Your task to perform on an android device: Search for dell xps on costco.com, select the first entry, add it to the cart, then select checkout. Image 0: 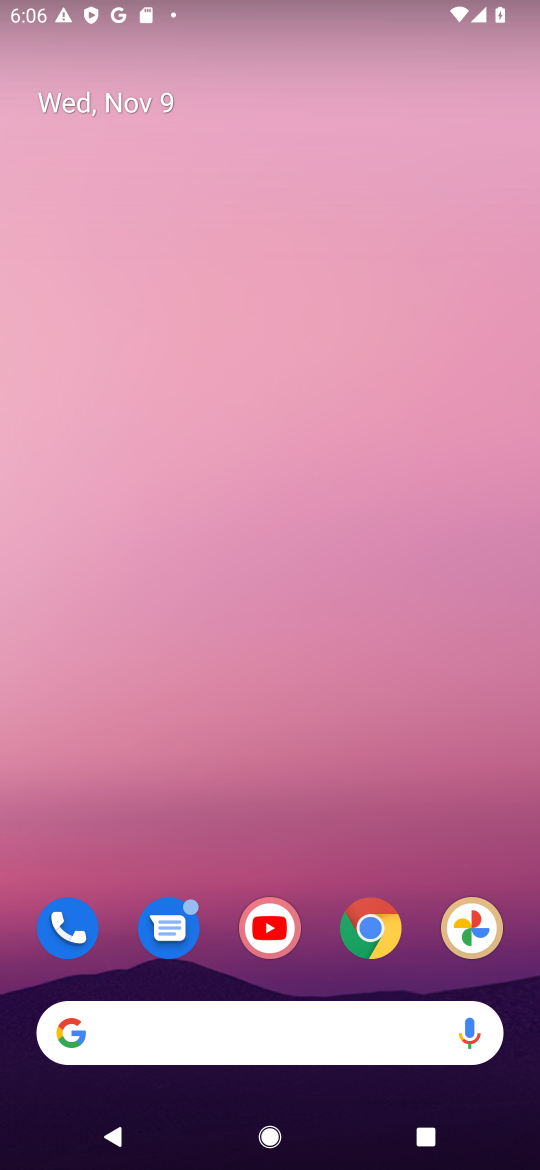
Step 0: click (374, 926)
Your task to perform on an android device: Search for dell xps on costco.com, select the first entry, add it to the cart, then select checkout. Image 1: 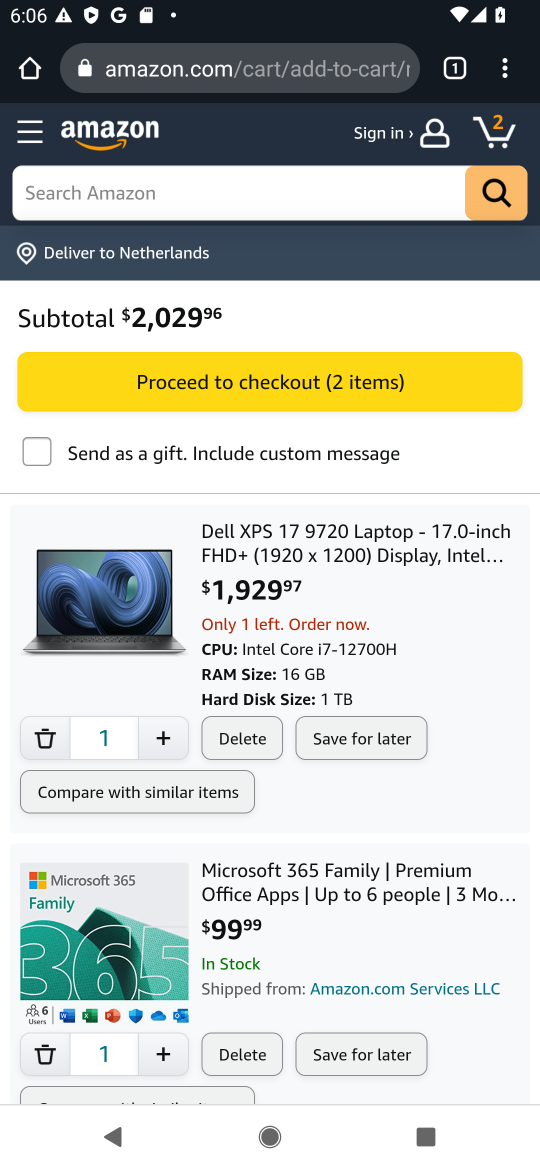
Step 1: click (243, 64)
Your task to perform on an android device: Search for dell xps on costco.com, select the first entry, add it to the cart, then select checkout. Image 2: 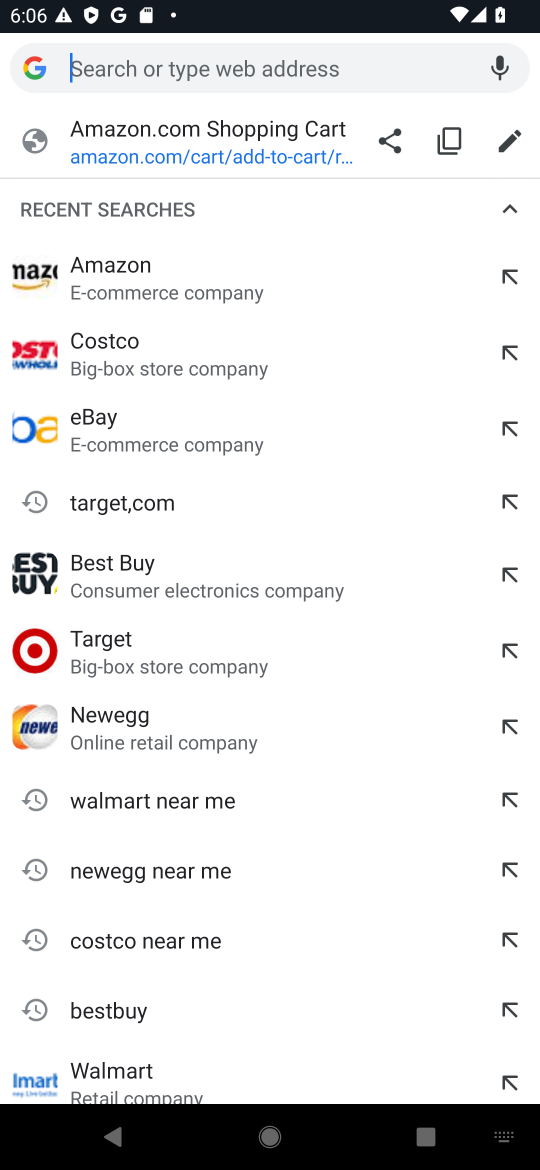
Step 2: click (144, 366)
Your task to perform on an android device: Search for dell xps on costco.com, select the first entry, add it to the cart, then select checkout. Image 3: 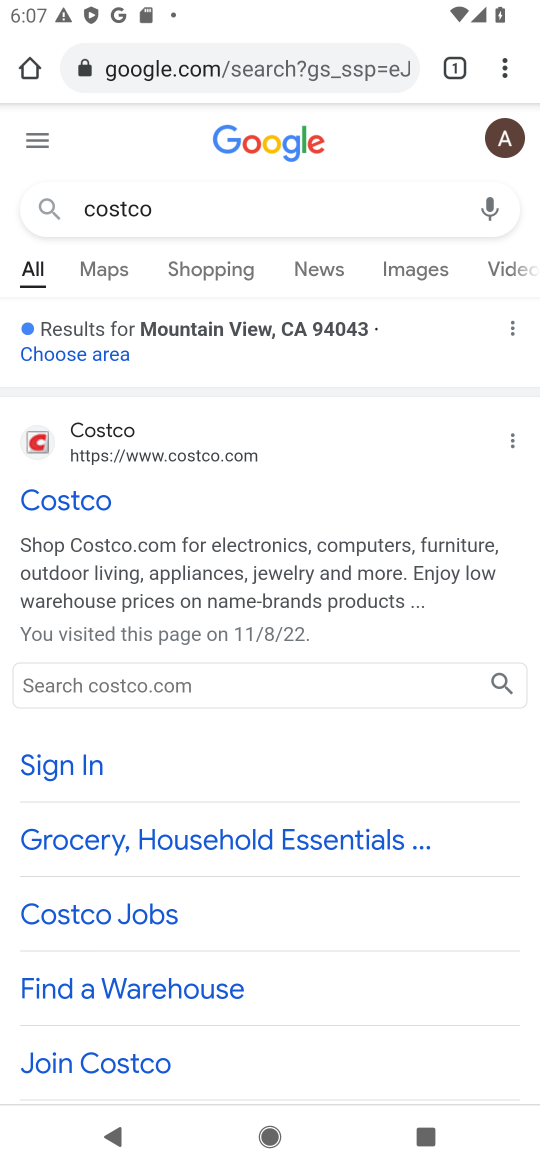
Step 3: click (90, 676)
Your task to perform on an android device: Search for dell xps on costco.com, select the first entry, add it to the cart, then select checkout. Image 4: 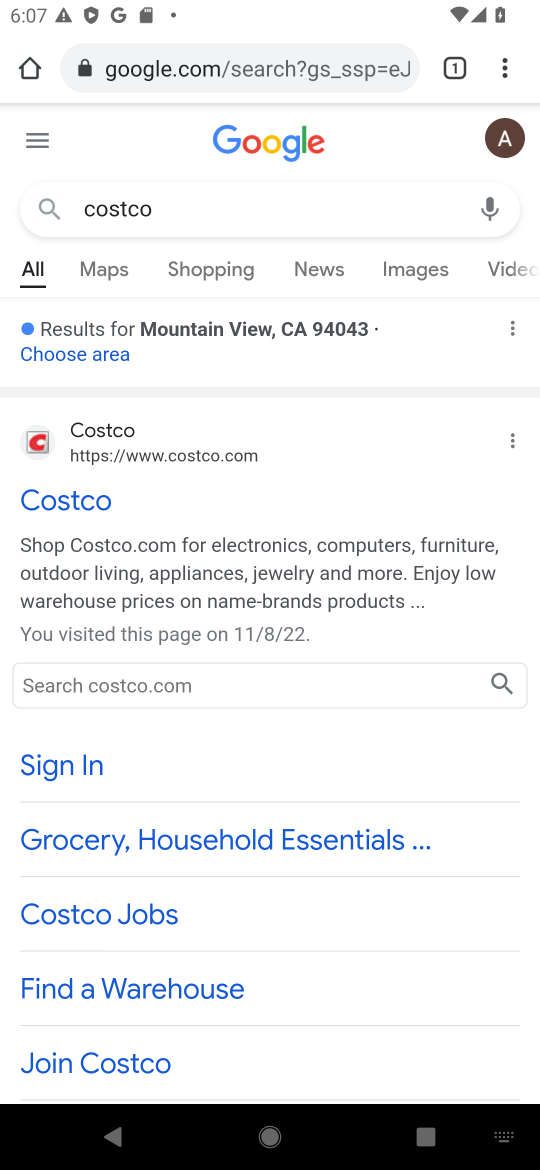
Step 4: type "dell xps"
Your task to perform on an android device: Search for dell xps on costco.com, select the first entry, add it to the cart, then select checkout. Image 5: 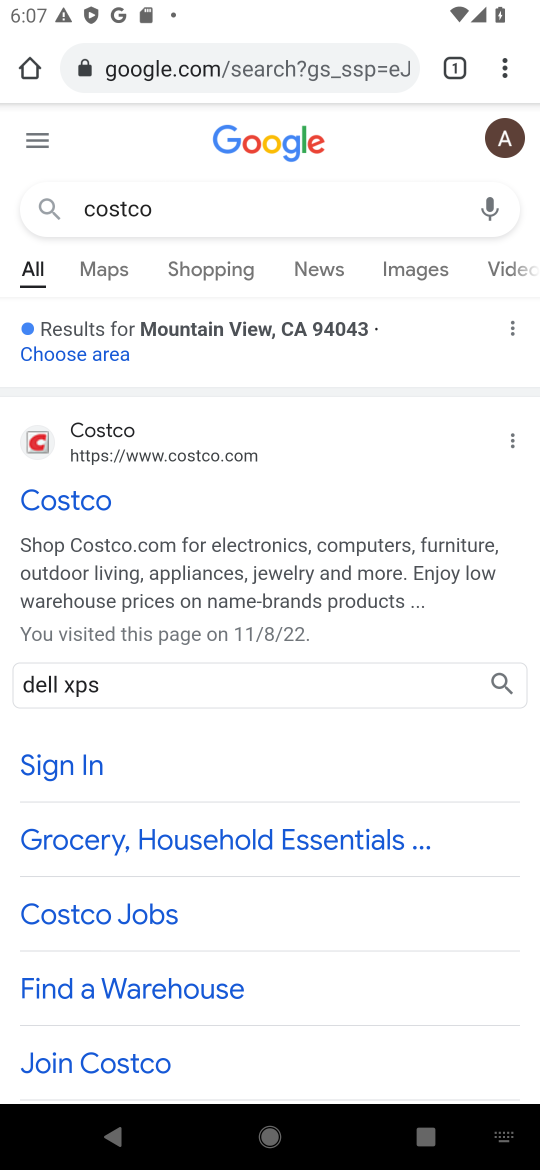
Step 5: click (505, 686)
Your task to perform on an android device: Search for dell xps on costco.com, select the first entry, add it to the cart, then select checkout. Image 6: 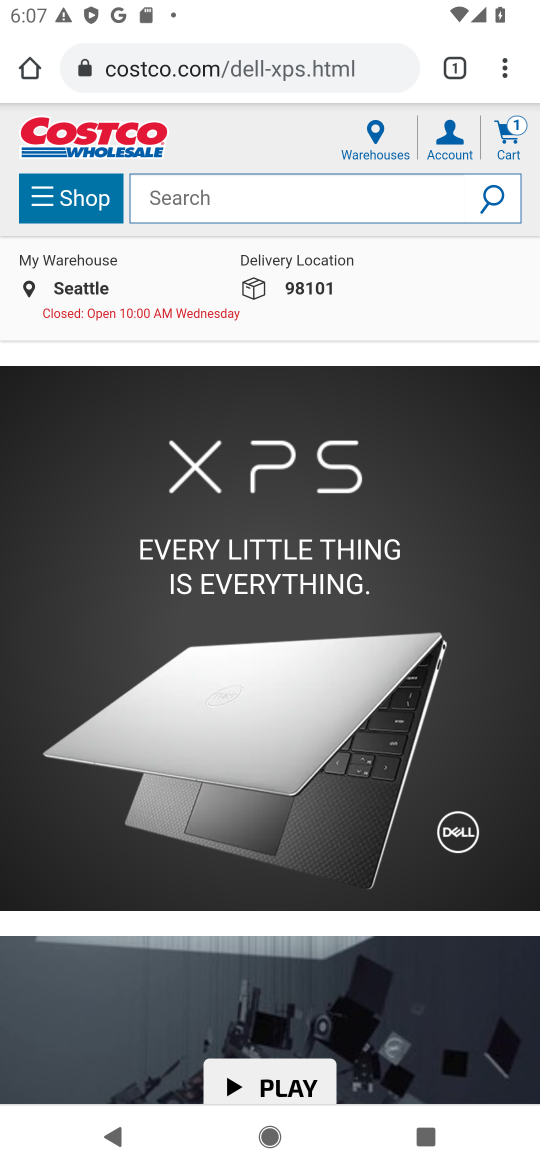
Step 6: click (367, 208)
Your task to perform on an android device: Search for dell xps on costco.com, select the first entry, add it to the cart, then select checkout. Image 7: 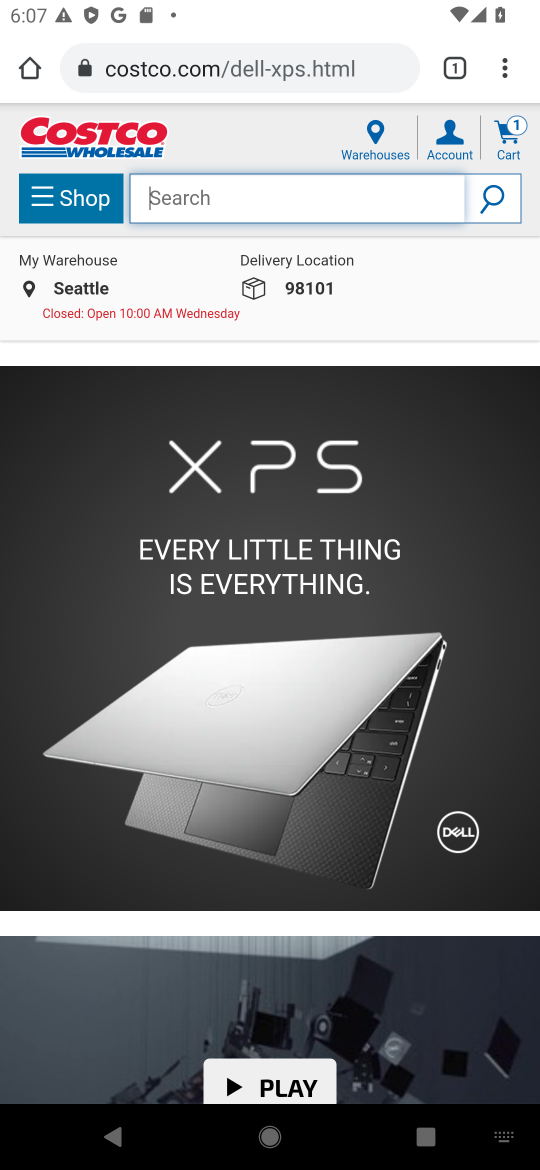
Step 7: type "dell xps"
Your task to perform on an android device: Search for dell xps on costco.com, select the first entry, add it to the cart, then select checkout. Image 8: 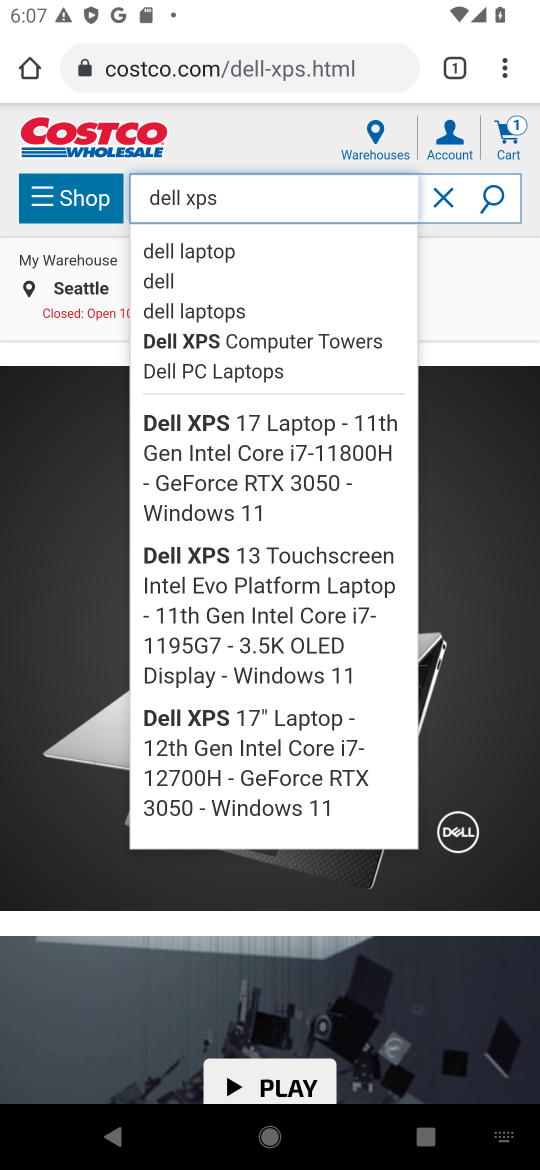
Step 8: click (267, 341)
Your task to perform on an android device: Search for dell xps on costco.com, select the first entry, add it to the cart, then select checkout. Image 9: 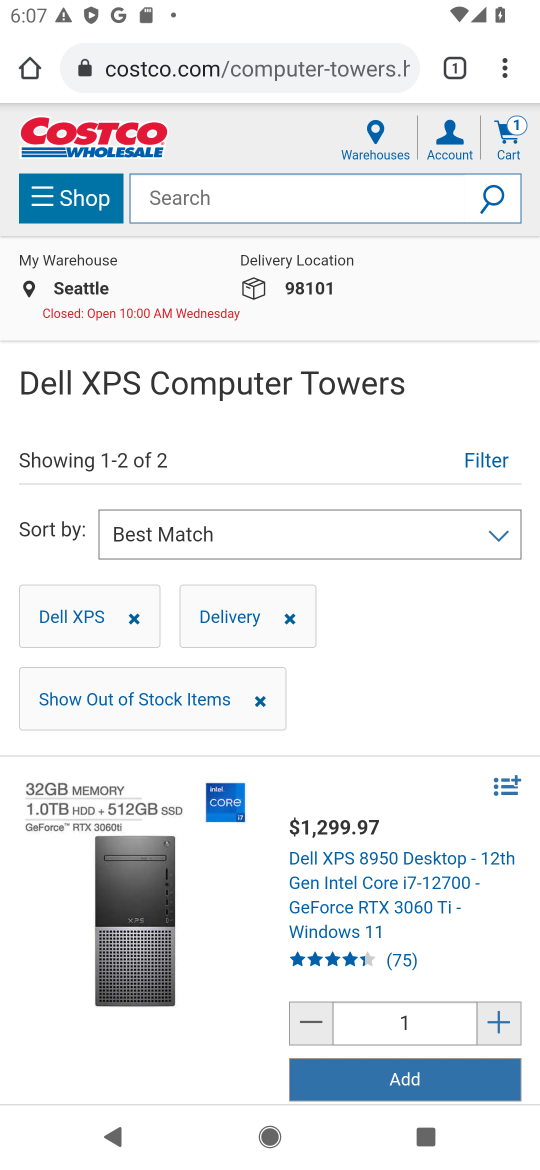
Step 9: click (399, 1082)
Your task to perform on an android device: Search for dell xps on costco.com, select the first entry, add it to the cart, then select checkout. Image 10: 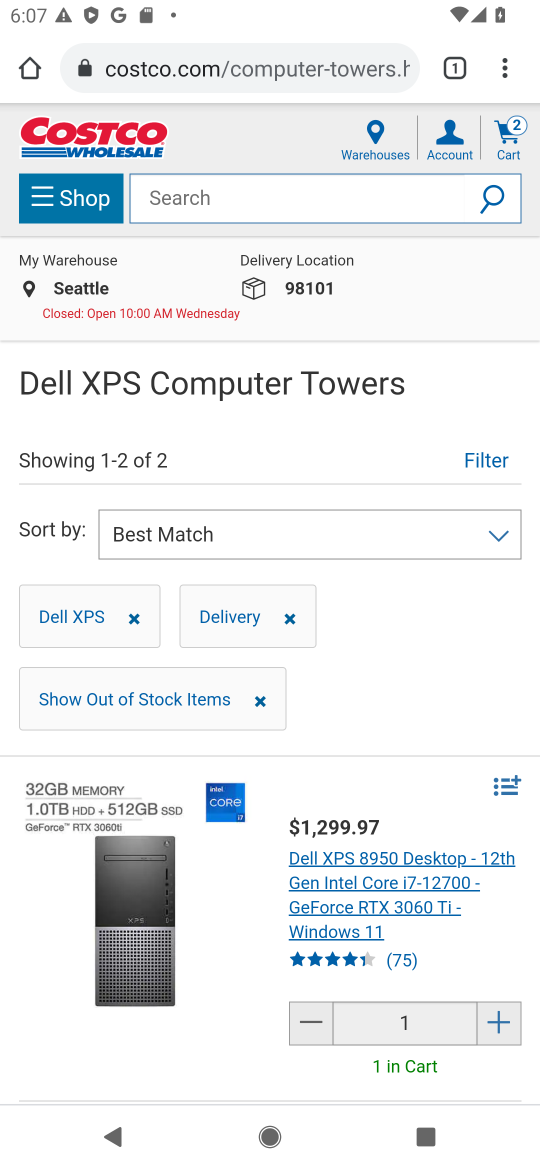
Step 10: click (512, 139)
Your task to perform on an android device: Search for dell xps on costco.com, select the first entry, add it to the cart, then select checkout. Image 11: 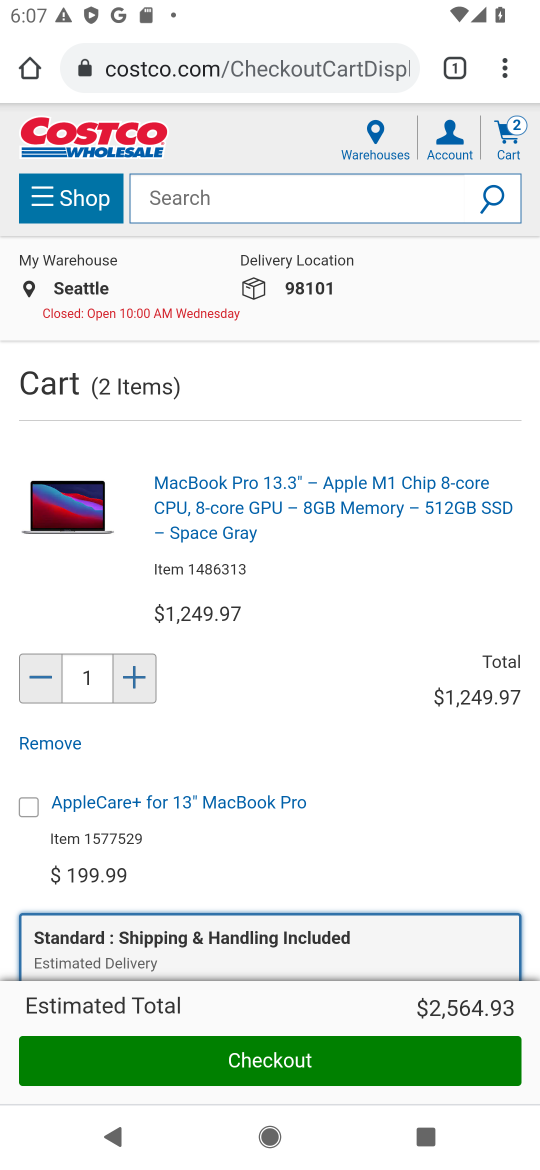
Step 11: click (273, 1065)
Your task to perform on an android device: Search for dell xps on costco.com, select the first entry, add it to the cart, then select checkout. Image 12: 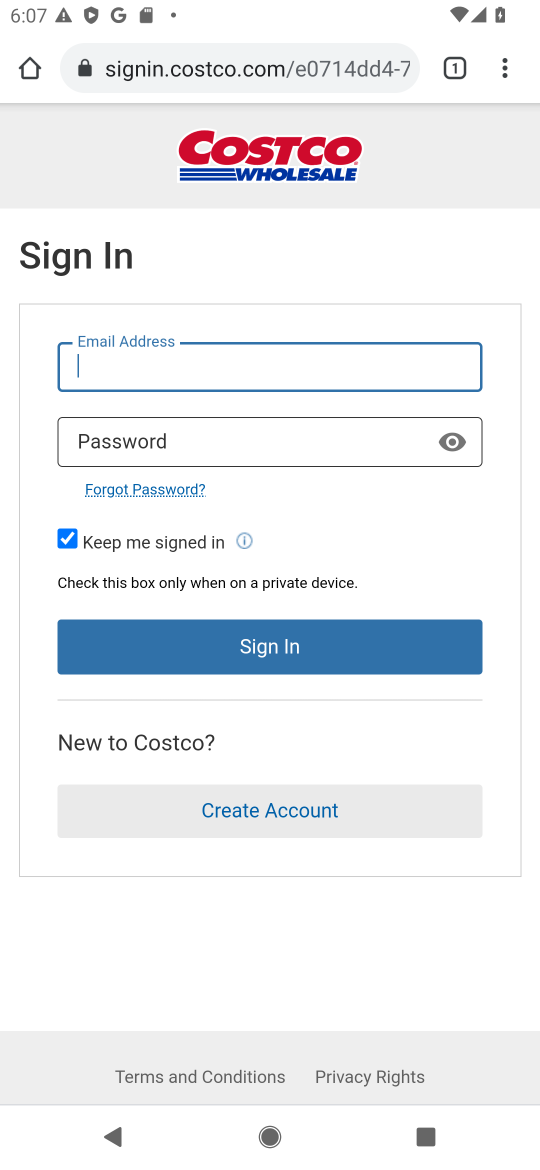
Step 12: task complete